Your task to perform on an android device: open app "ZOOM Cloud Meetings" (install if not already installed) Image 0: 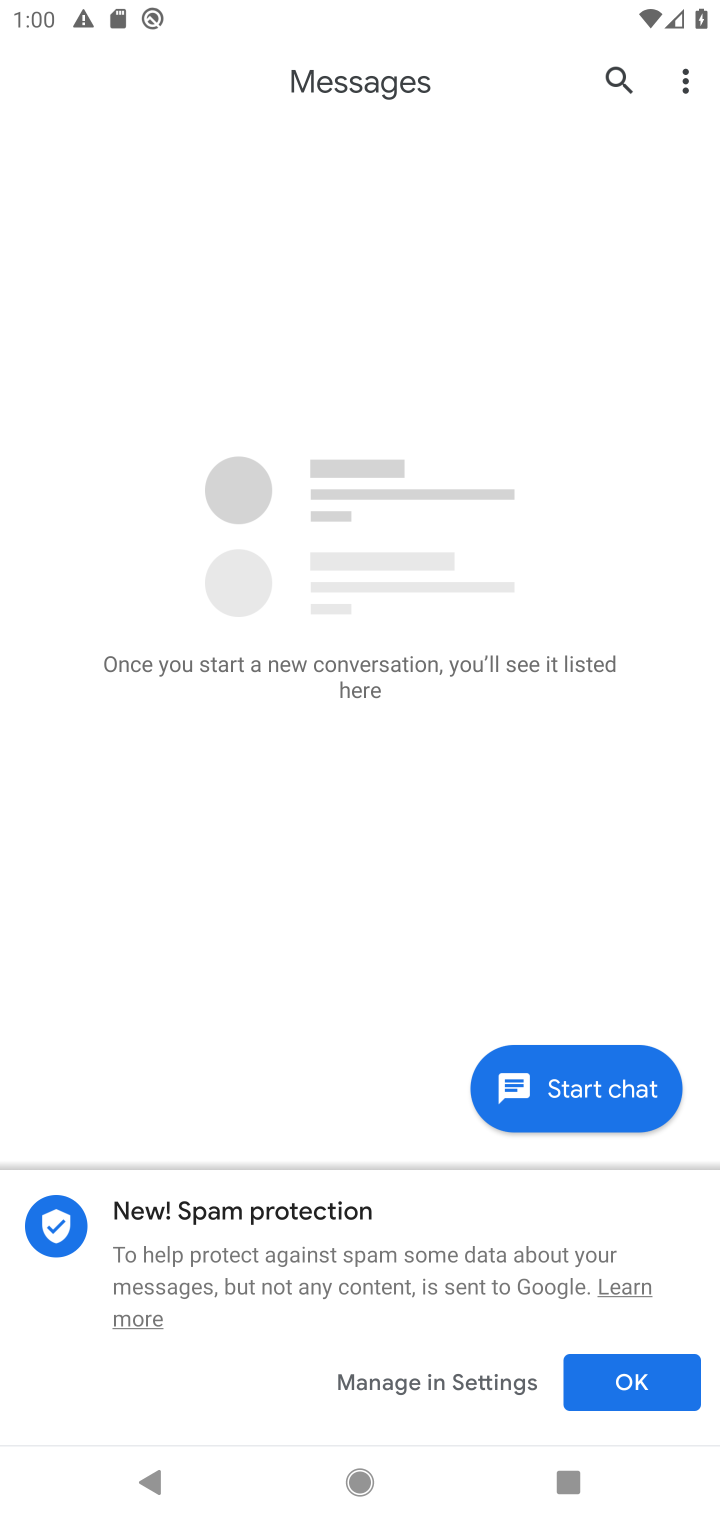
Step 0: press home button
Your task to perform on an android device: open app "ZOOM Cloud Meetings" (install if not already installed) Image 1: 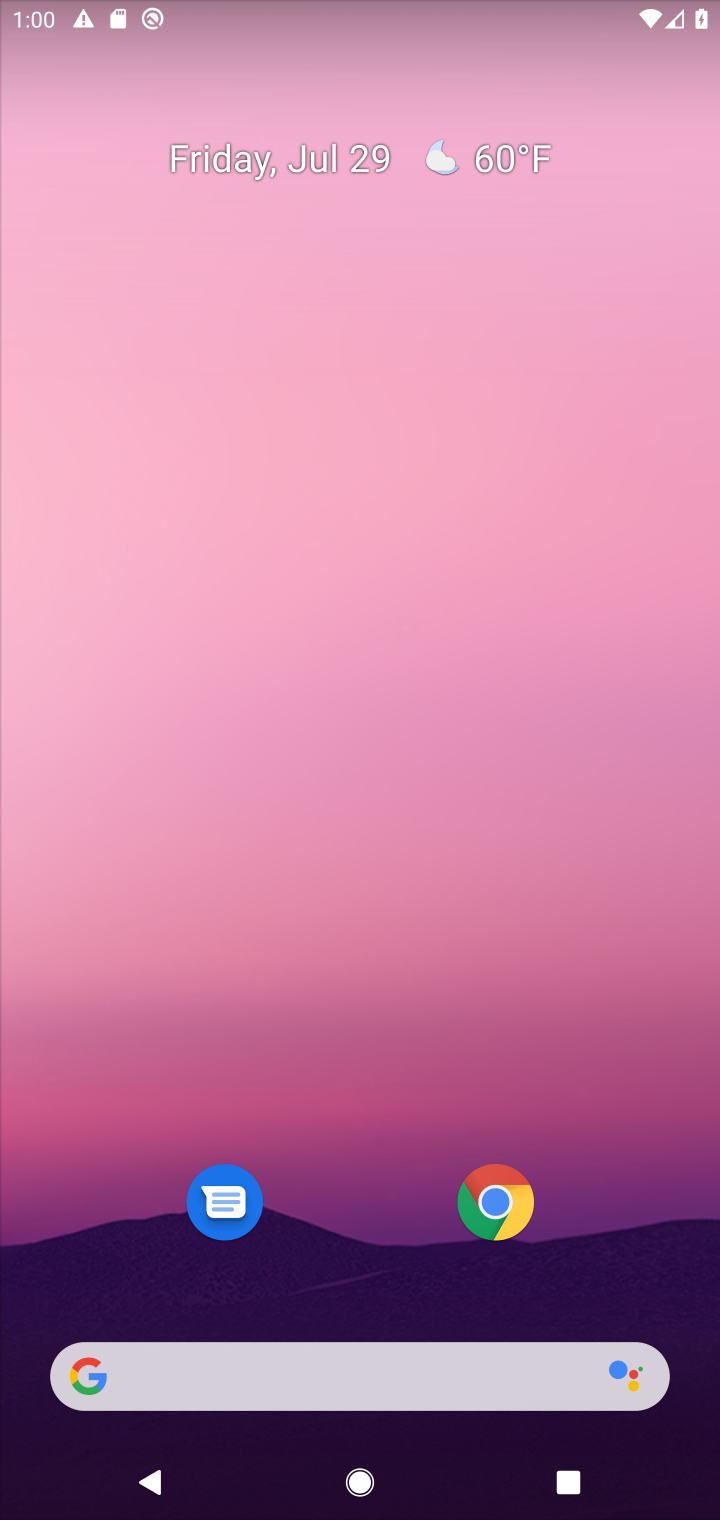
Step 1: drag from (442, 1295) to (495, 306)
Your task to perform on an android device: open app "ZOOM Cloud Meetings" (install if not already installed) Image 2: 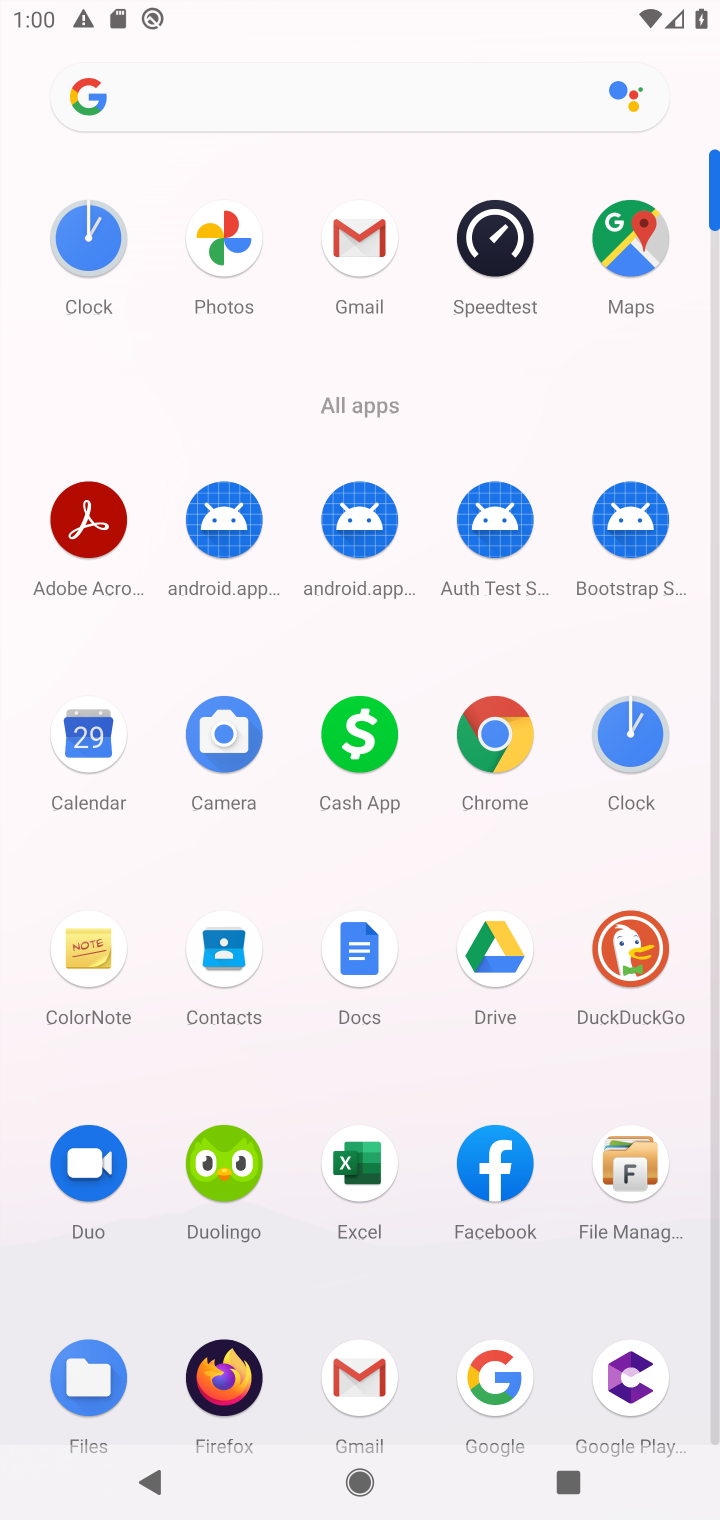
Step 2: click (213, 101)
Your task to perform on an android device: open app "ZOOM Cloud Meetings" (install if not already installed) Image 3: 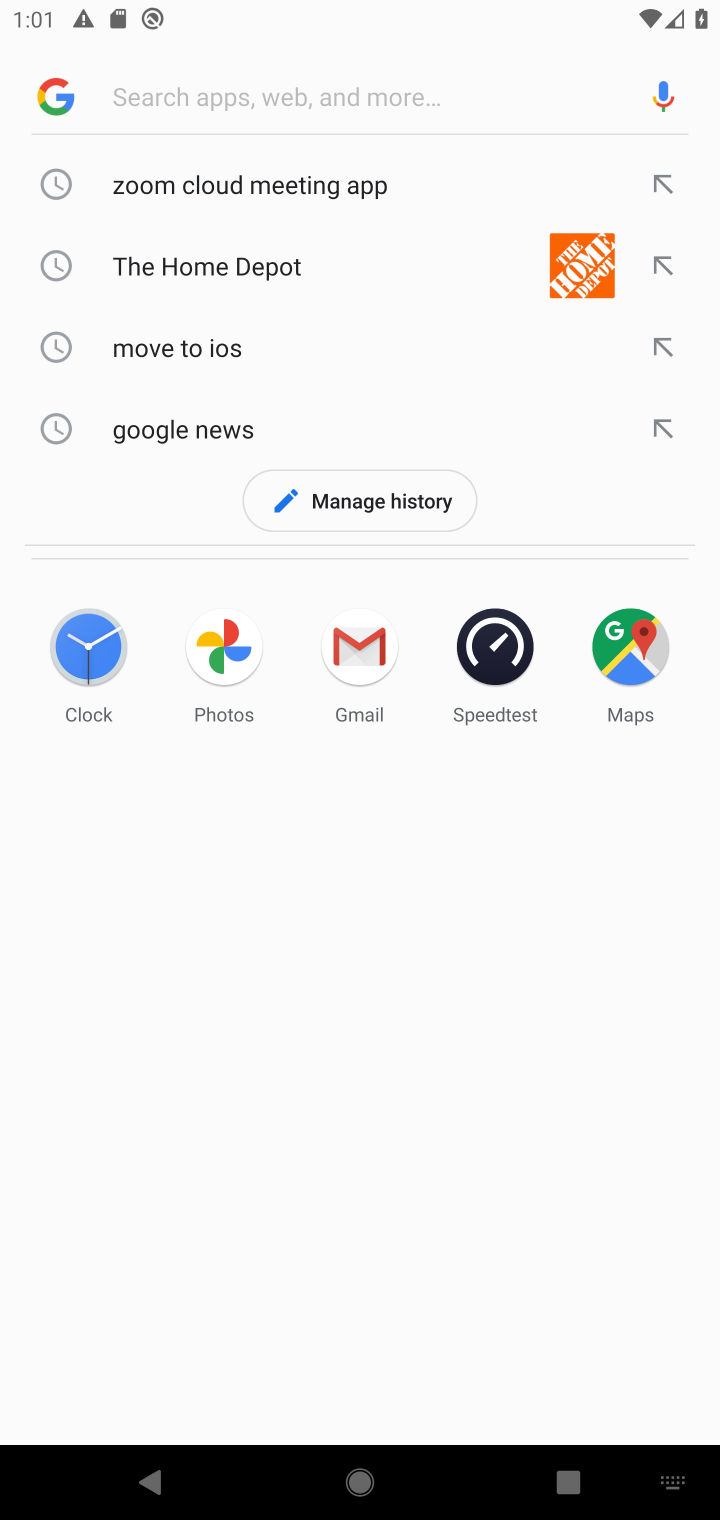
Step 3: type "zoom "
Your task to perform on an android device: open app "ZOOM Cloud Meetings" (install if not already installed) Image 4: 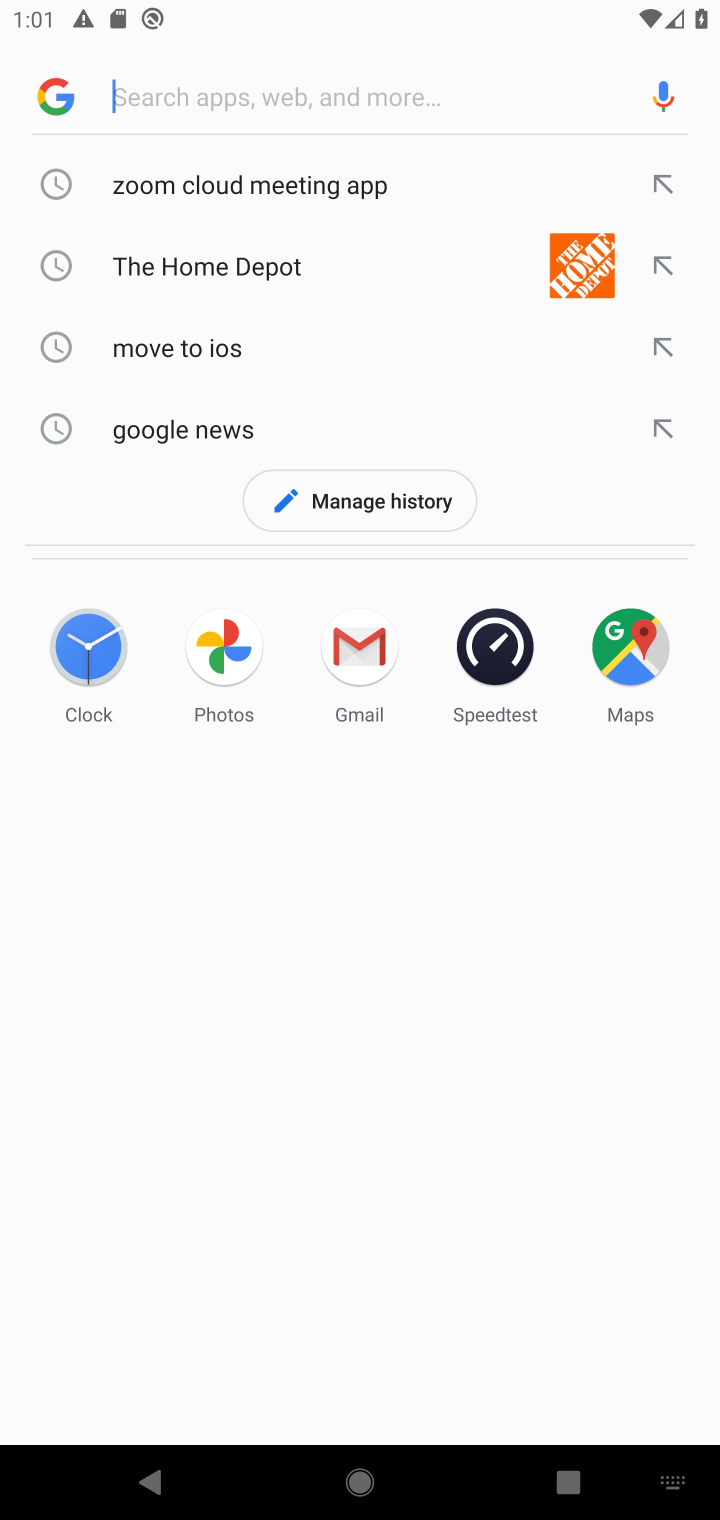
Step 4: click (295, 181)
Your task to perform on an android device: open app "ZOOM Cloud Meetings" (install if not already installed) Image 5: 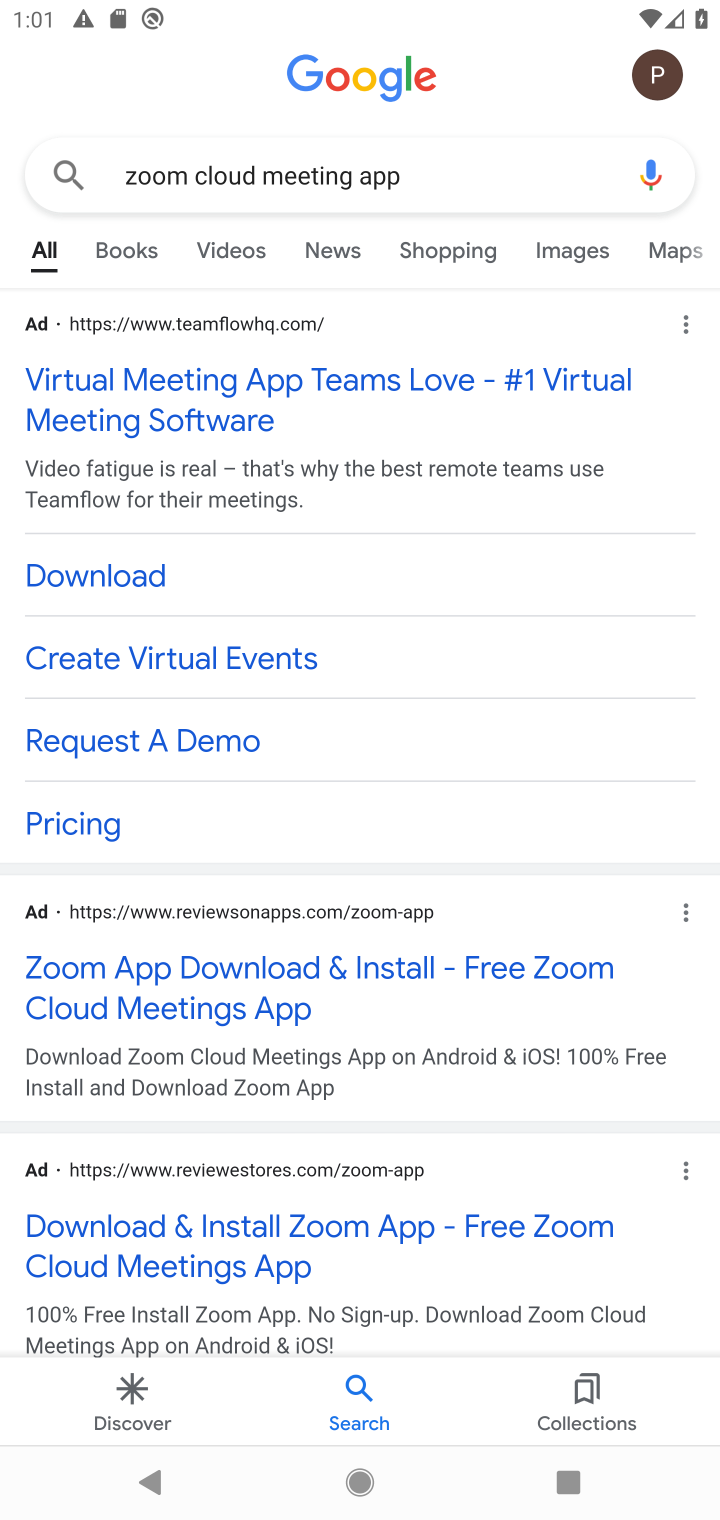
Step 5: drag from (476, 1119) to (533, 298)
Your task to perform on an android device: open app "ZOOM Cloud Meetings" (install if not already installed) Image 6: 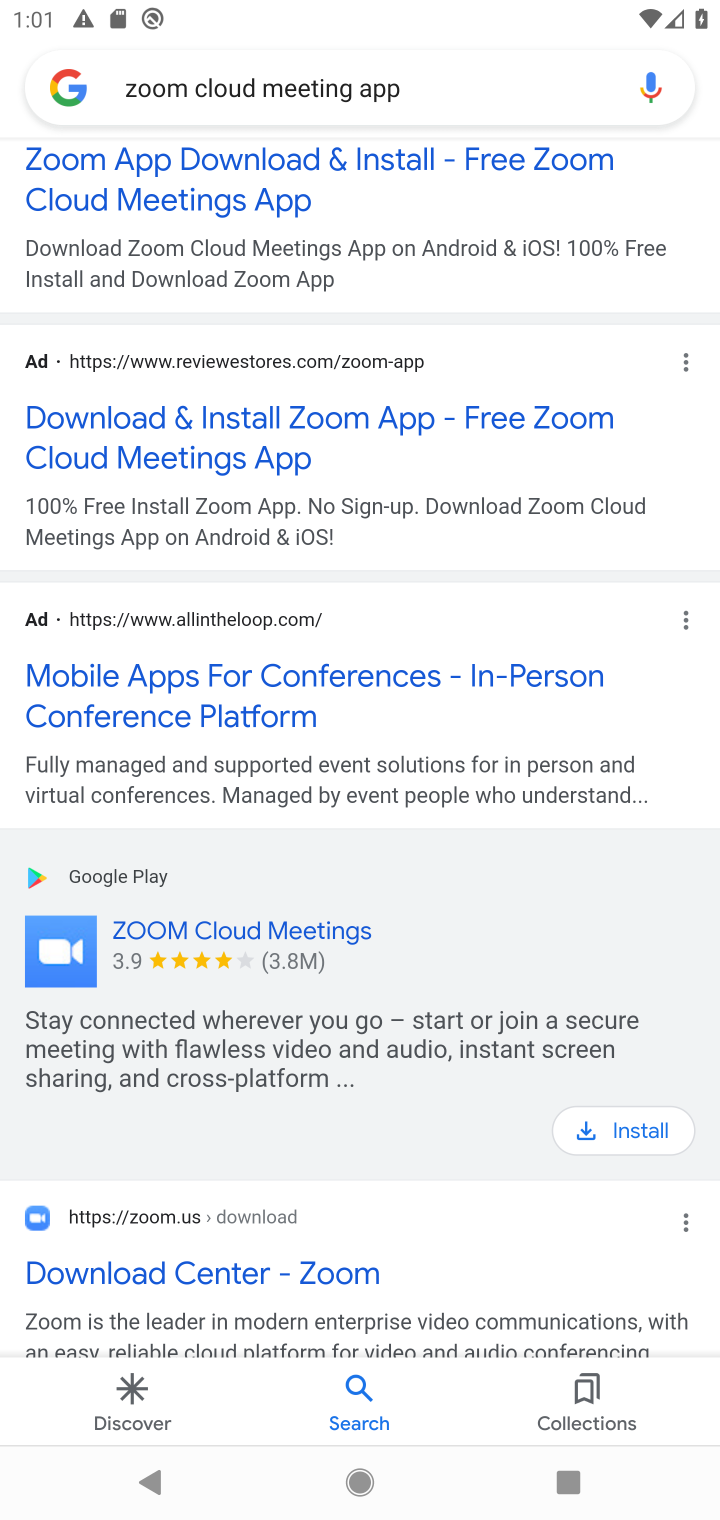
Step 6: click (587, 1115)
Your task to perform on an android device: open app "ZOOM Cloud Meetings" (install if not already installed) Image 7: 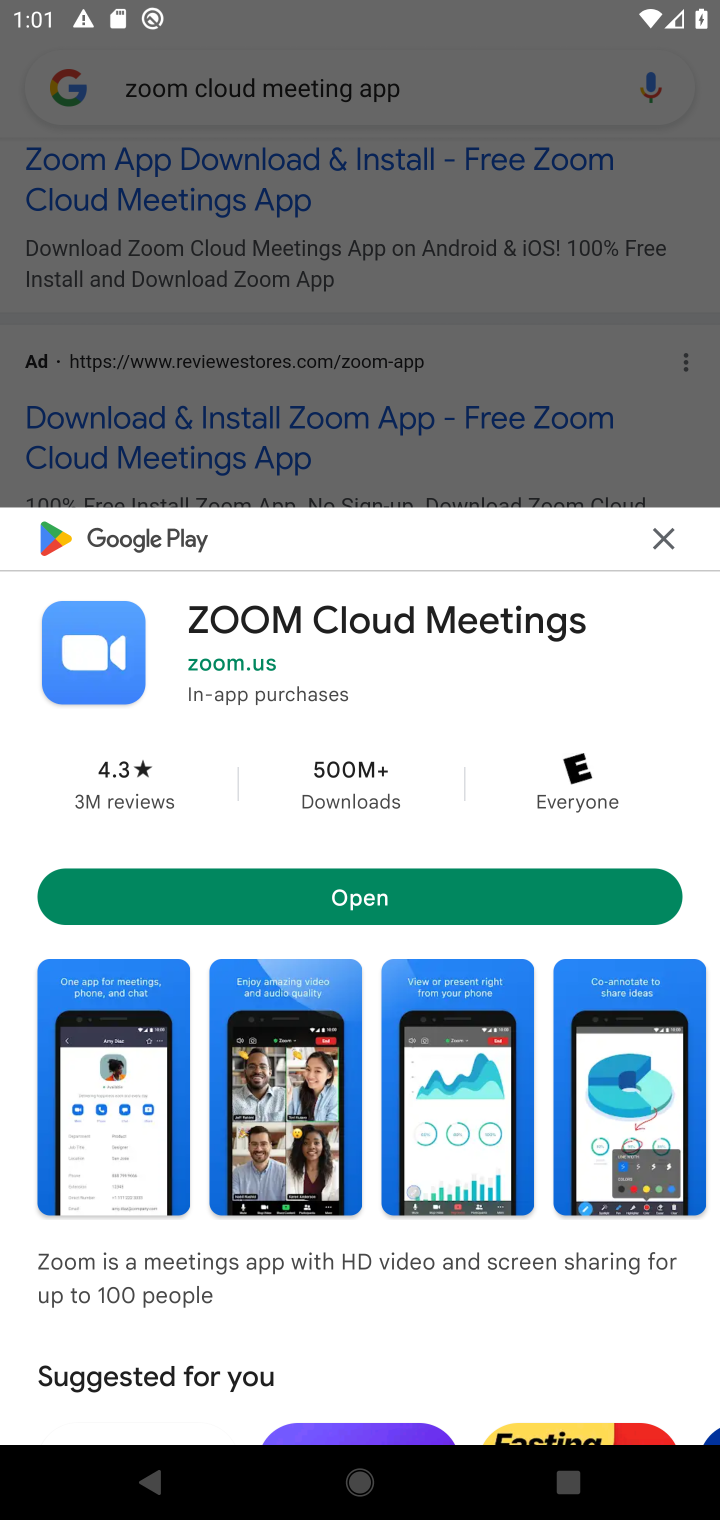
Step 7: task complete